Your task to perform on an android device: Open the phone app and click the voicemail tab. Image 0: 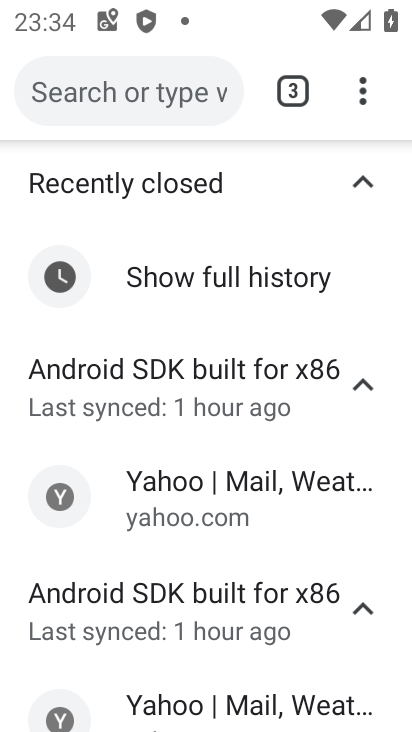
Step 0: press home button
Your task to perform on an android device: Open the phone app and click the voicemail tab. Image 1: 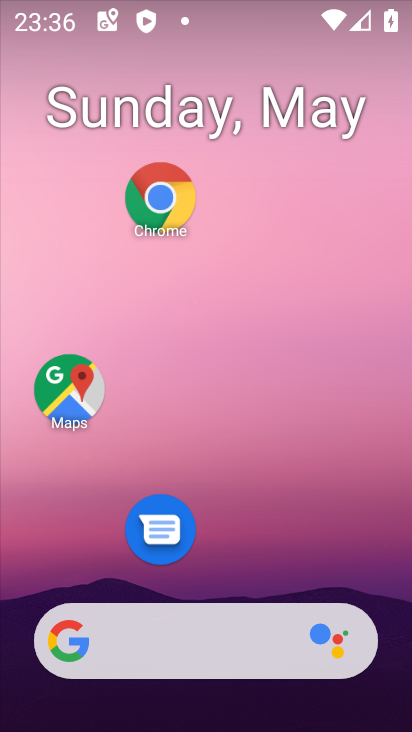
Step 1: task complete